Your task to perform on an android device: open the mobile data screen to see how much data has been used Image 0: 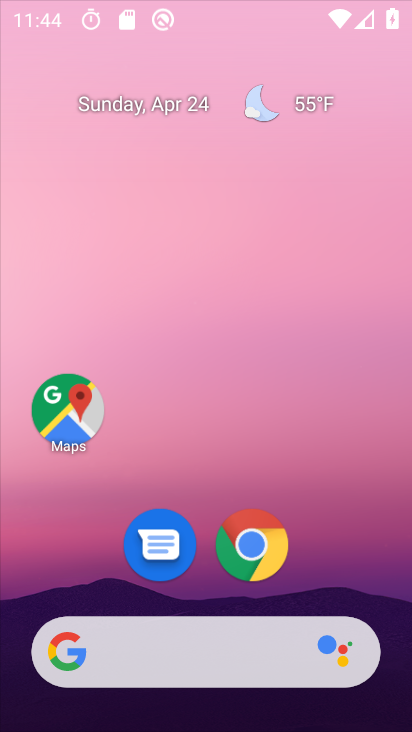
Step 0: drag from (293, 596) to (216, 159)
Your task to perform on an android device: open the mobile data screen to see how much data has been used Image 1: 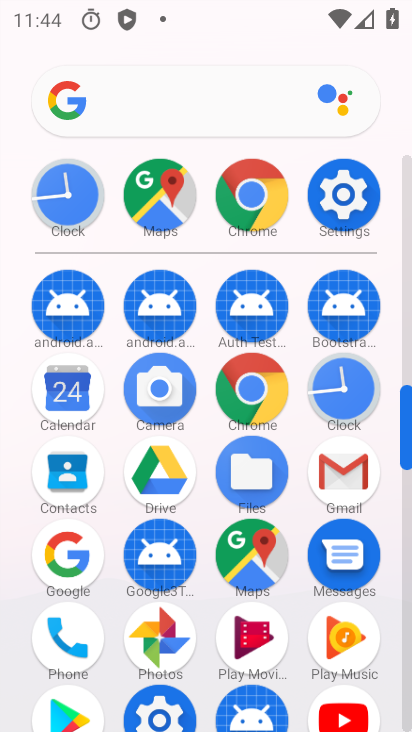
Step 1: click (327, 180)
Your task to perform on an android device: open the mobile data screen to see how much data has been used Image 2: 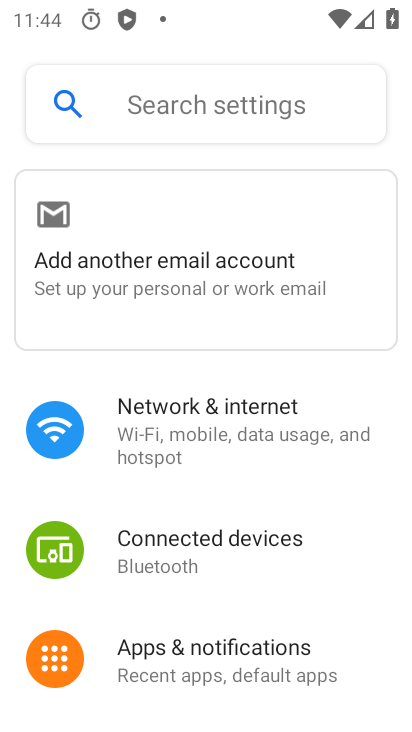
Step 2: click (165, 110)
Your task to perform on an android device: open the mobile data screen to see how much data has been used Image 3: 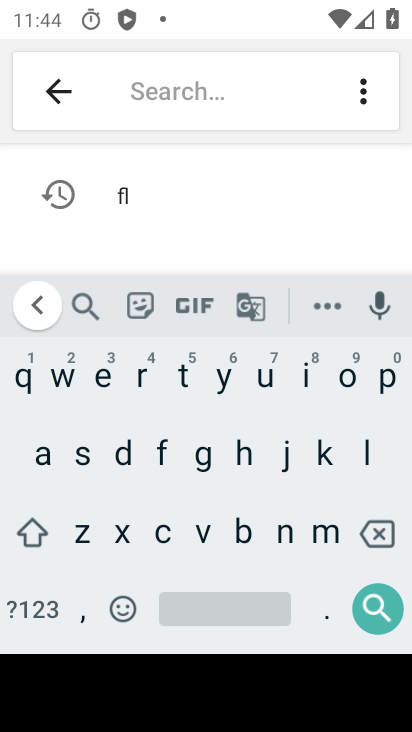
Step 3: click (109, 462)
Your task to perform on an android device: open the mobile data screen to see how much data has been used Image 4: 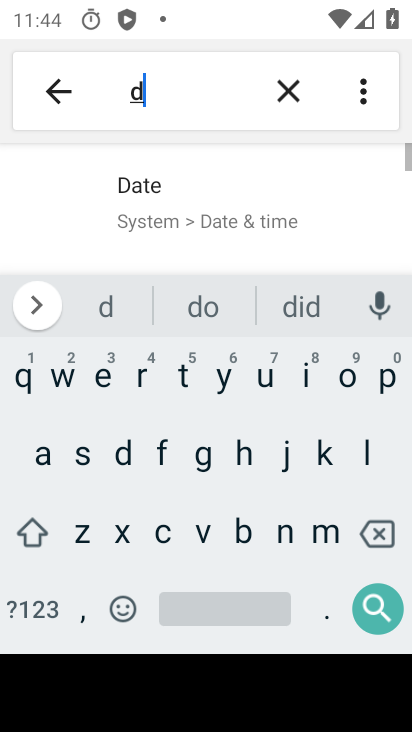
Step 4: drag from (118, 434) to (280, 489)
Your task to perform on an android device: open the mobile data screen to see how much data has been used Image 5: 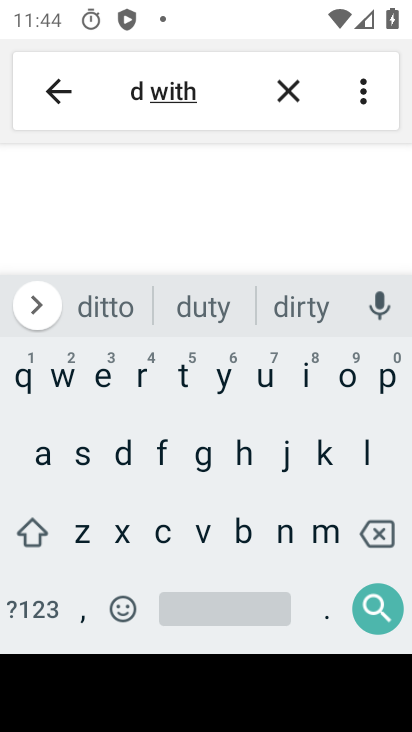
Step 5: click (297, 82)
Your task to perform on an android device: open the mobile data screen to see how much data has been used Image 6: 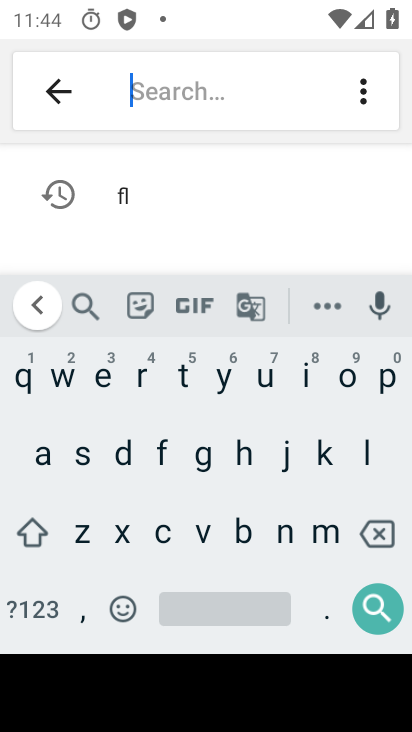
Step 6: click (129, 455)
Your task to perform on an android device: open the mobile data screen to see how much data has been used Image 7: 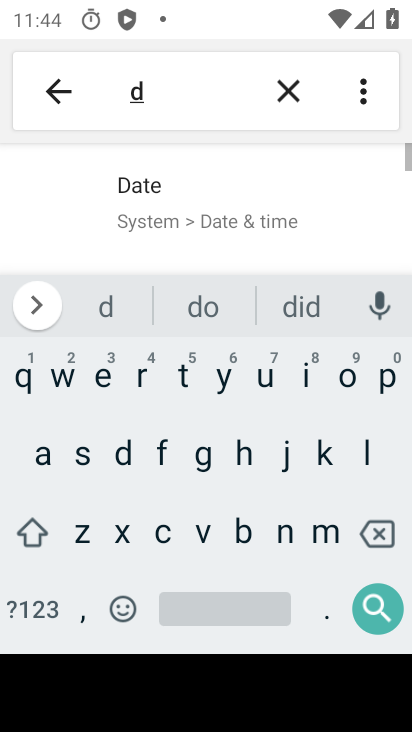
Step 7: click (42, 450)
Your task to perform on an android device: open the mobile data screen to see how much data has been used Image 8: 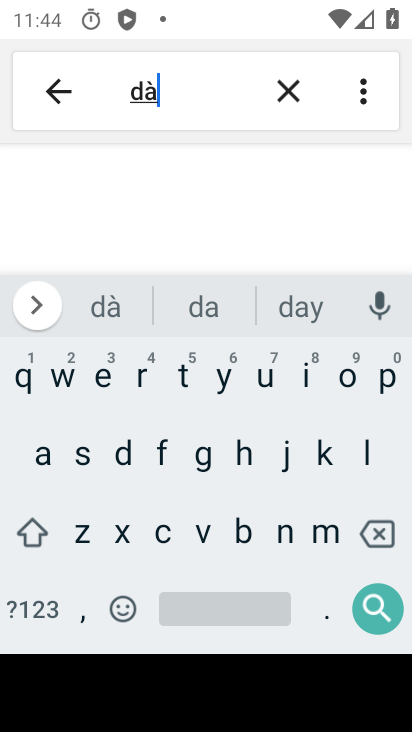
Step 8: click (379, 538)
Your task to perform on an android device: open the mobile data screen to see how much data has been used Image 9: 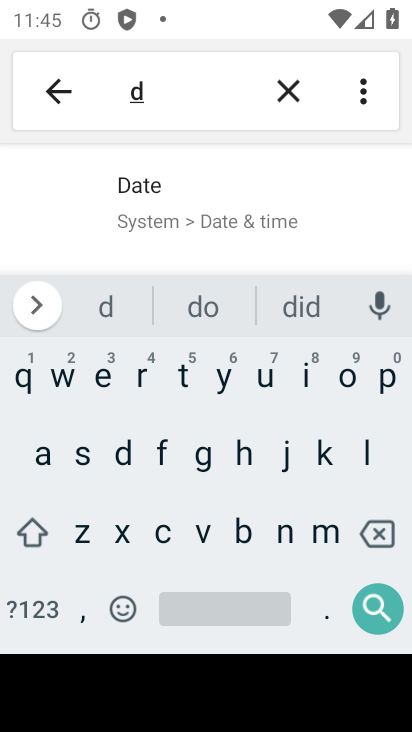
Step 9: click (44, 460)
Your task to perform on an android device: open the mobile data screen to see how much data has been used Image 10: 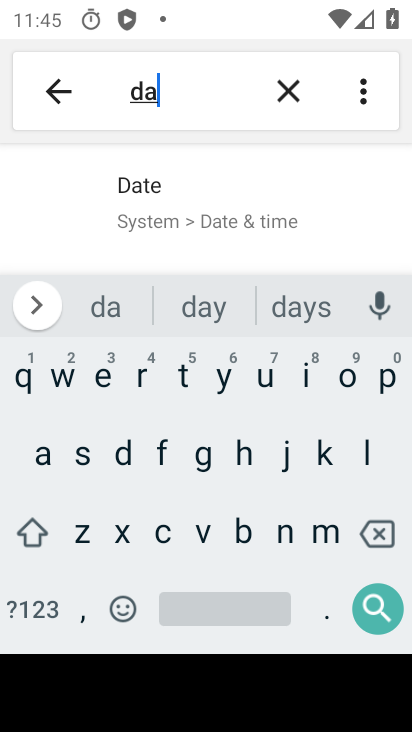
Step 10: click (178, 385)
Your task to perform on an android device: open the mobile data screen to see how much data has been used Image 11: 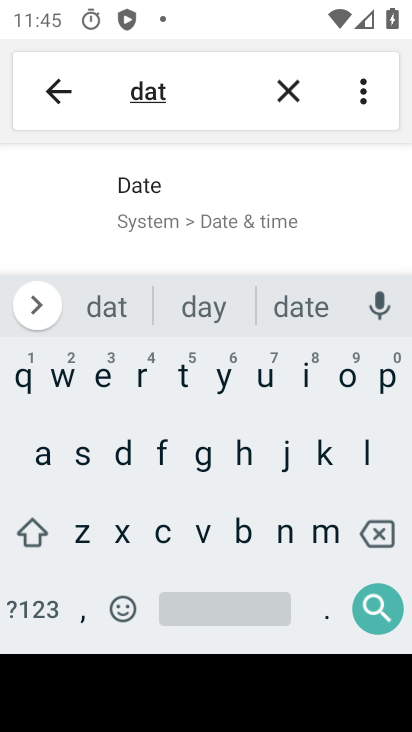
Step 11: click (44, 447)
Your task to perform on an android device: open the mobile data screen to see how much data has been used Image 12: 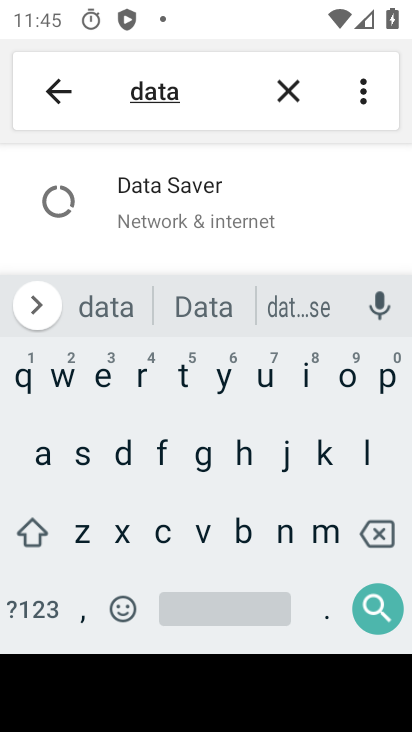
Step 12: click (187, 609)
Your task to perform on an android device: open the mobile data screen to see how much data has been used Image 13: 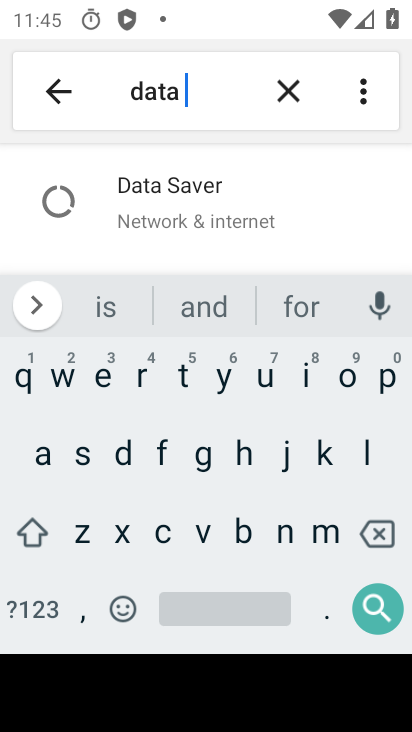
Step 13: click (269, 379)
Your task to perform on an android device: open the mobile data screen to see how much data has been used Image 14: 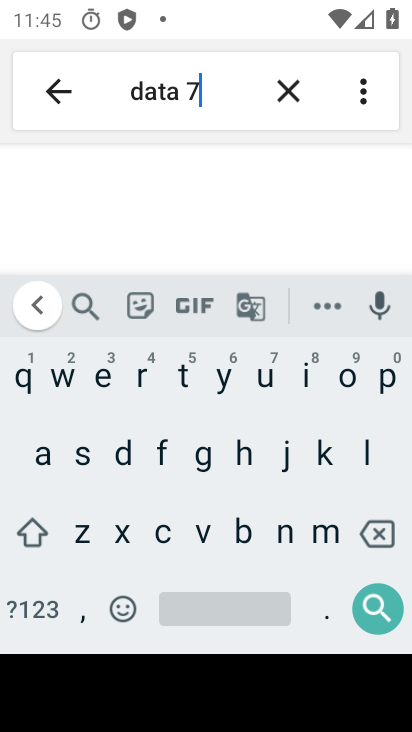
Step 14: click (389, 540)
Your task to perform on an android device: open the mobile data screen to see how much data has been used Image 15: 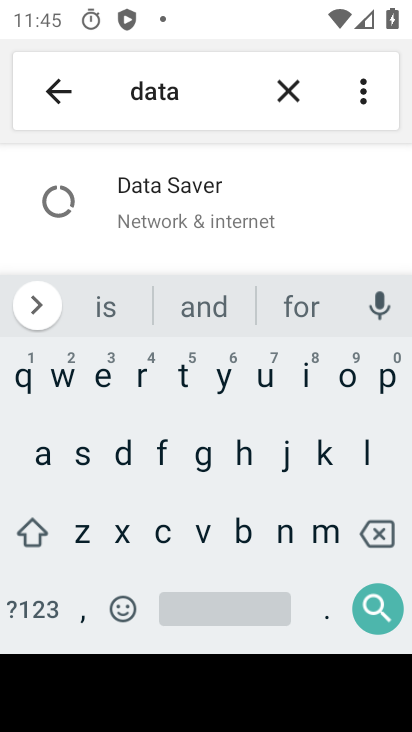
Step 15: click (260, 381)
Your task to perform on an android device: open the mobile data screen to see how much data has been used Image 16: 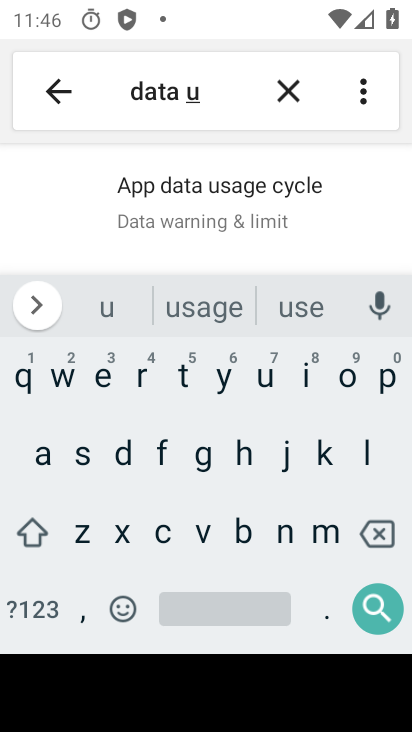
Step 16: drag from (202, 242) to (226, 150)
Your task to perform on an android device: open the mobile data screen to see how much data has been used Image 17: 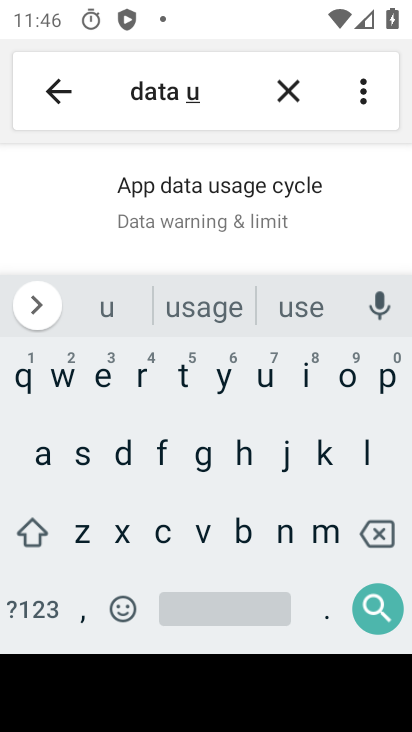
Step 17: press back button
Your task to perform on an android device: open the mobile data screen to see how much data has been used Image 18: 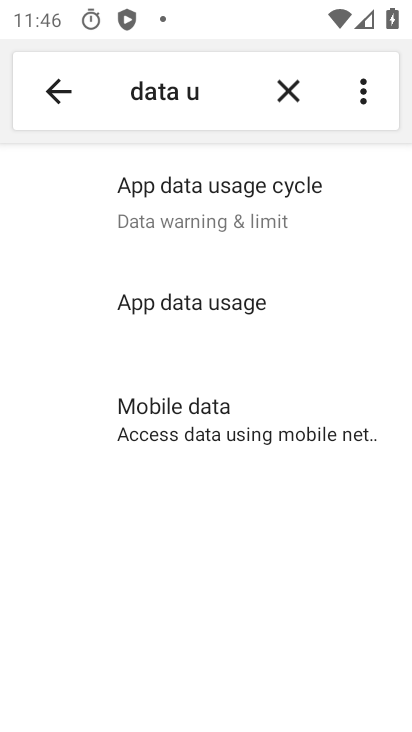
Step 18: click (199, 318)
Your task to perform on an android device: open the mobile data screen to see how much data has been used Image 19: 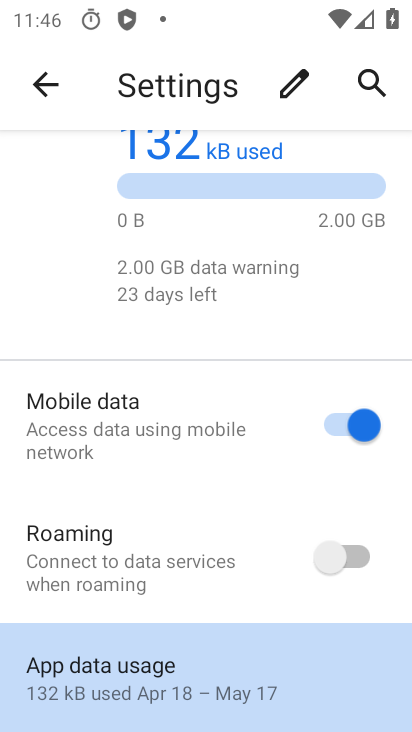
Step 19: click (102, 665)
Your task to perform on an android device: open the mobile data screen to see how much data has been used Image 20: 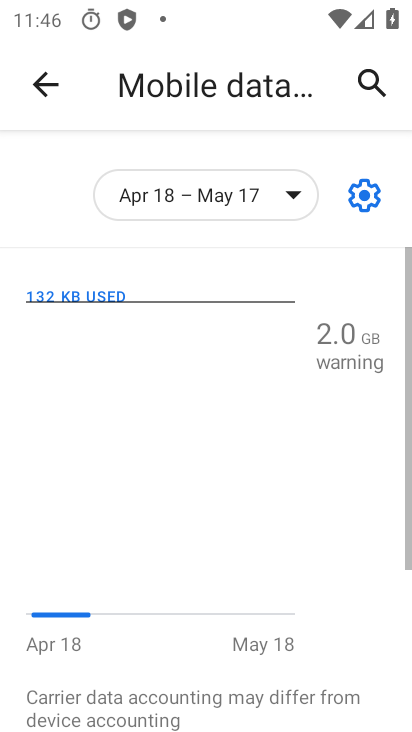
Step 20: task complete